Your task to perform on an android device: Open a new private window in the chrome app Image 0: 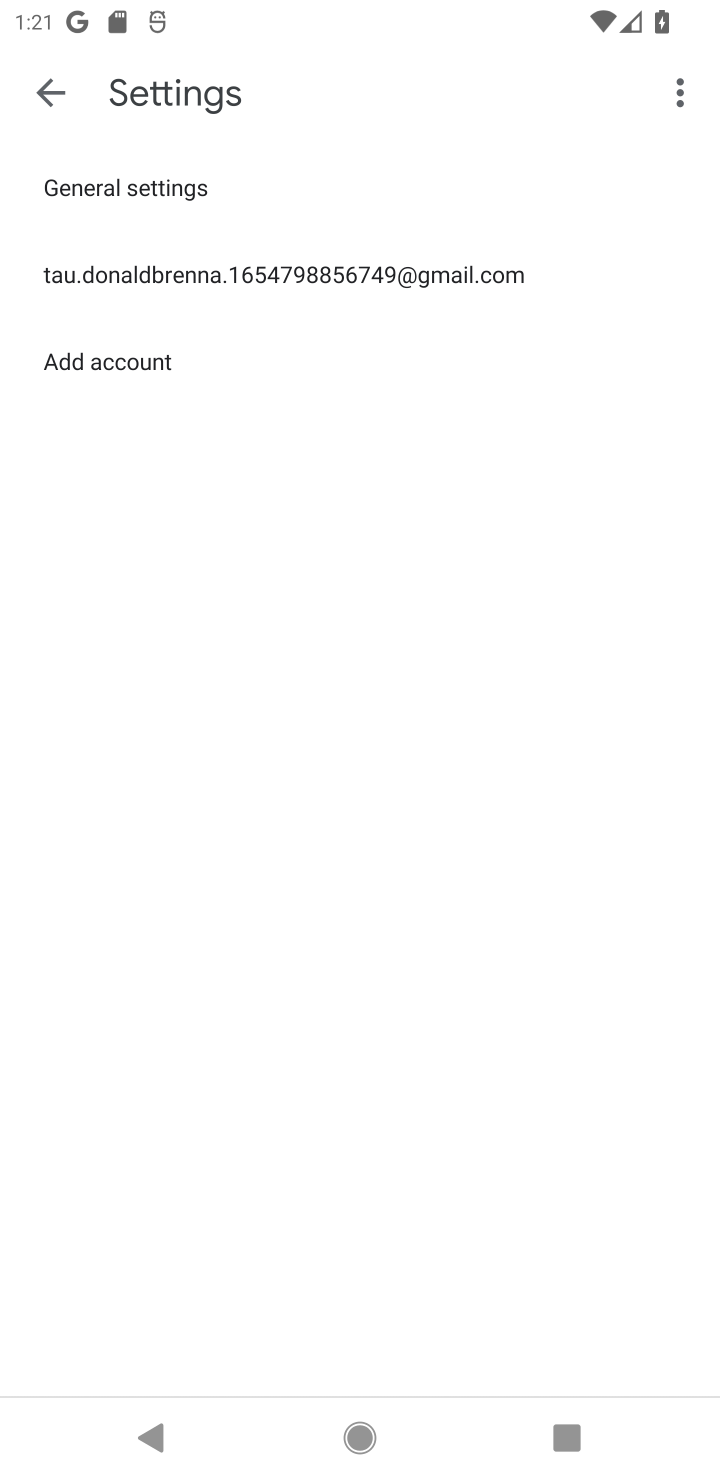
Step 0: press home button
Your task to perform on an android device: Open a new private window in the chrome app Image 1: 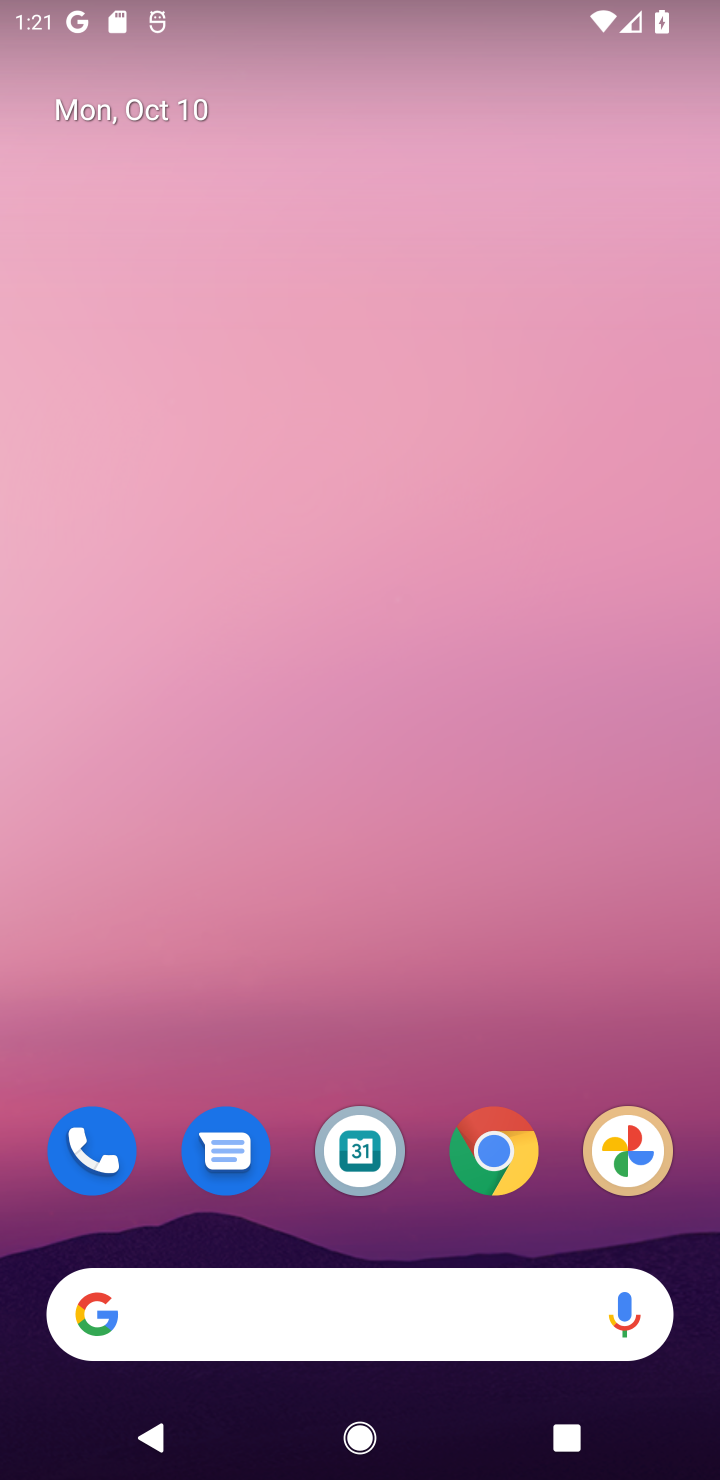
Step 1: click (496, 1156)
Your task to perform on an android device: Open a new private window in the chrome app Image 2: 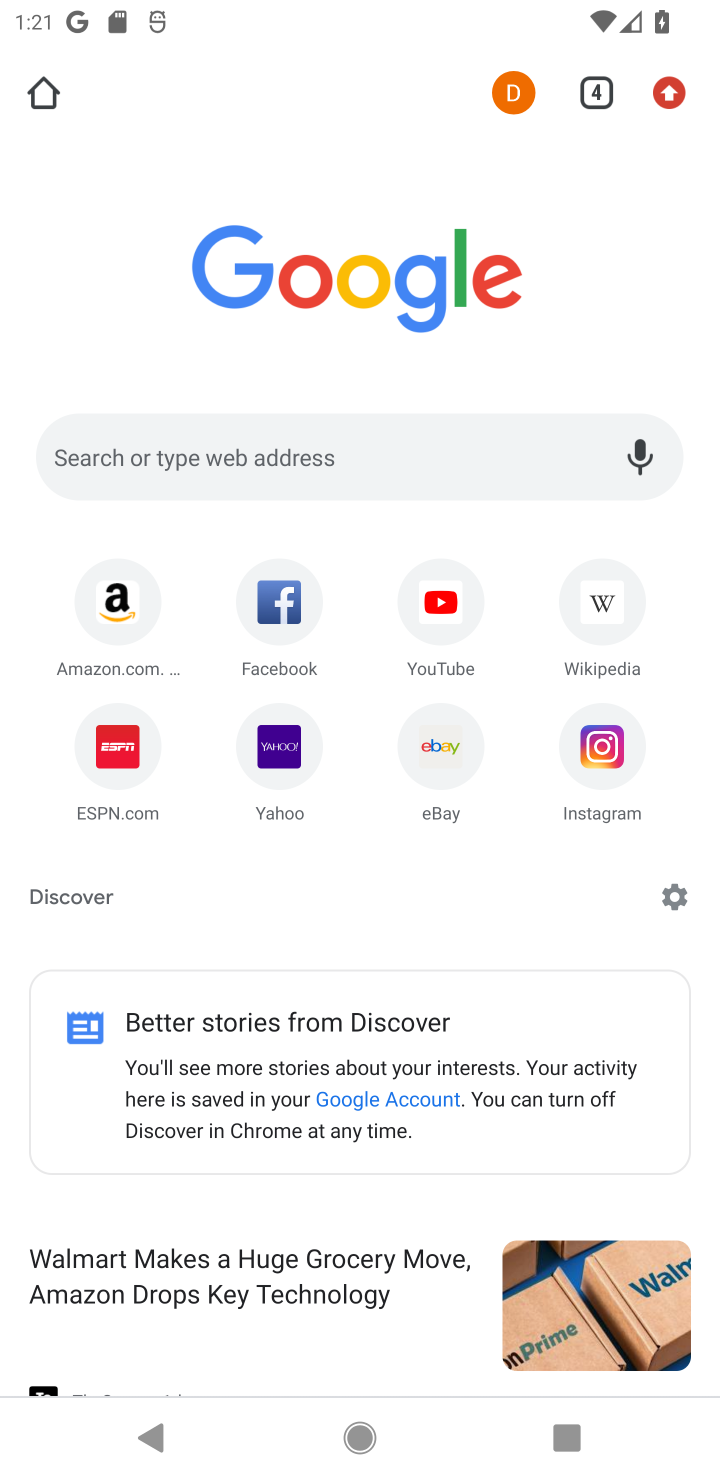
Step 2: click (669, 90)
Your task to perform on an android device: Open a new private window in the chrome app Image 3: 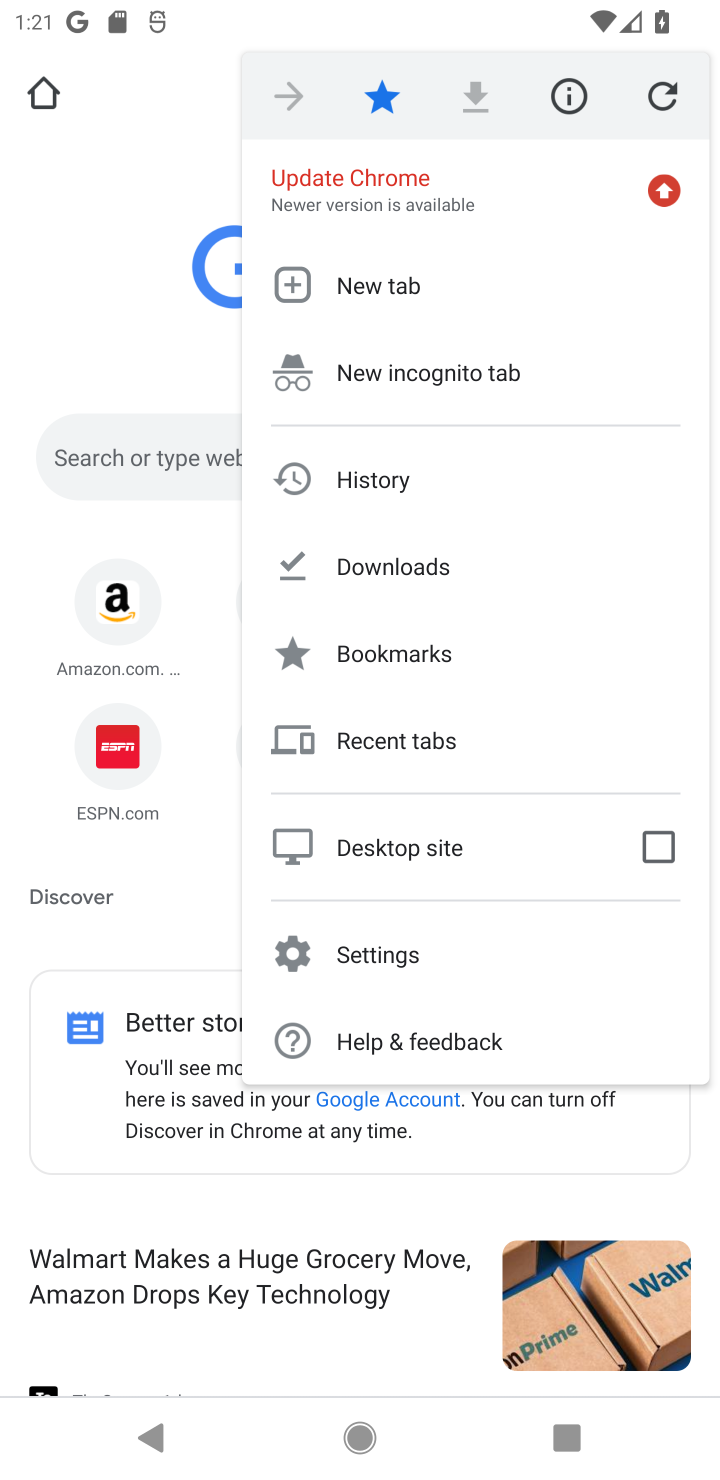
Step 3: click (290, 278)
Your task to perform on an android device: Open a new private window in the chrome app Image 4: 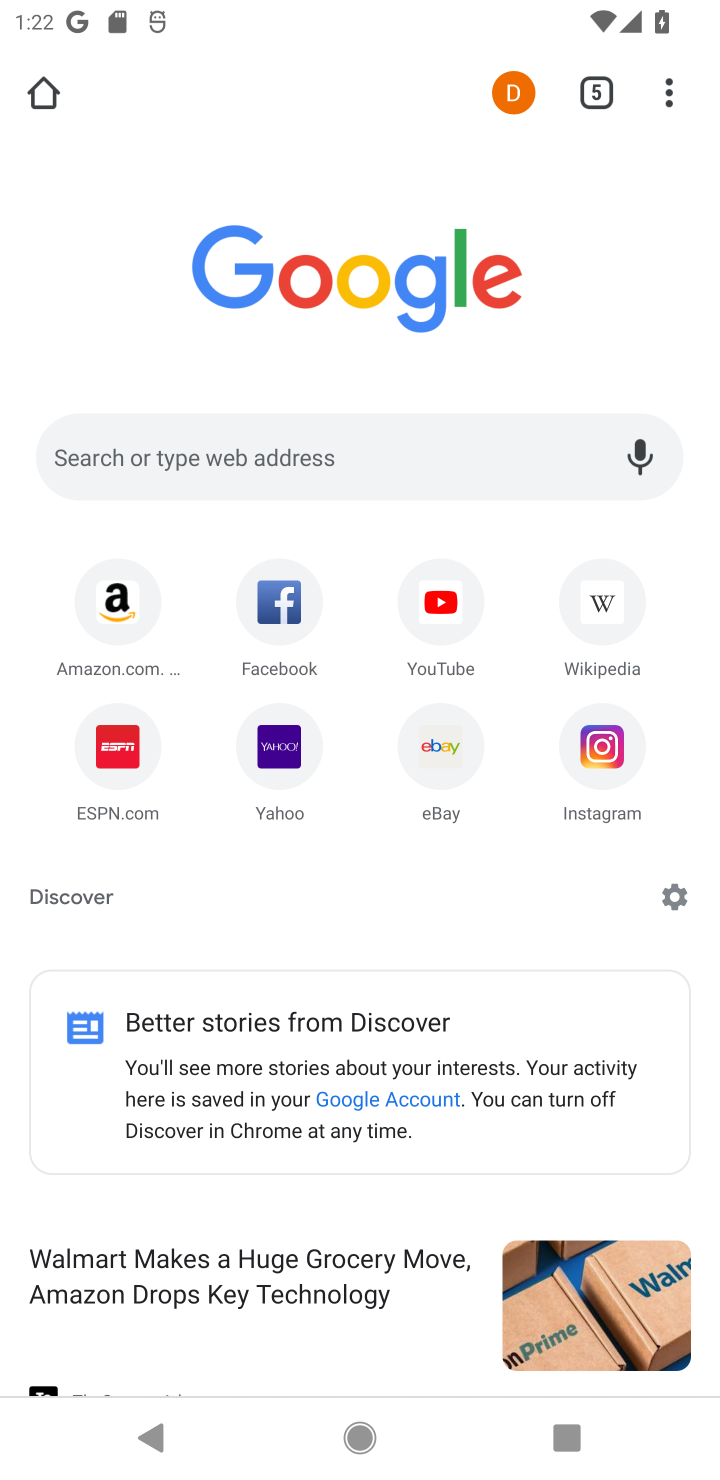
Step 4: task complete